Your task to perform on an android device: see creations saved in the google photos Image 0: 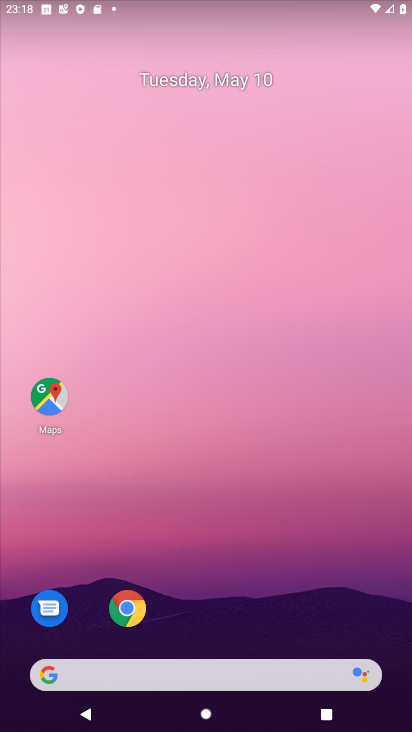
Step 0: drag from (213, 540) to (194, 386)
Your task to perform on an android device: see creations saved in the google photos Image 1: 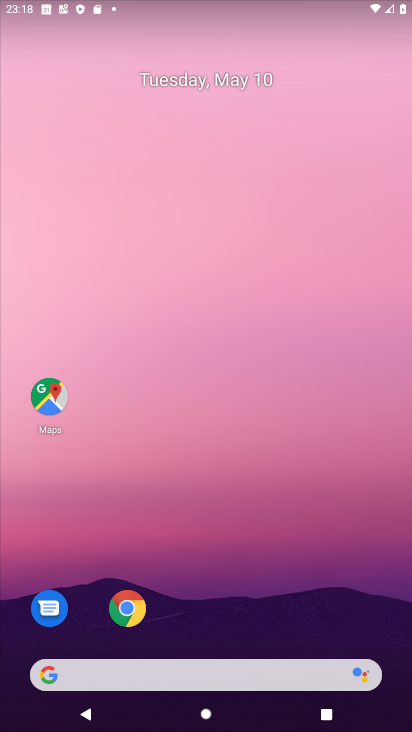
Step 1: drag from (218, 615) to (240, 245)
Your task to perform on an android device: see creations saved in the google photos Image 2: 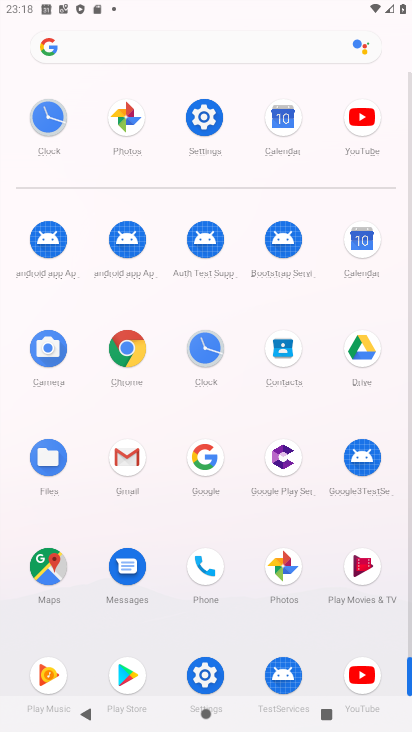
Step 2: click (124, 108)
Your task to perform on an android device: see creations saved in the google photos Image 3: 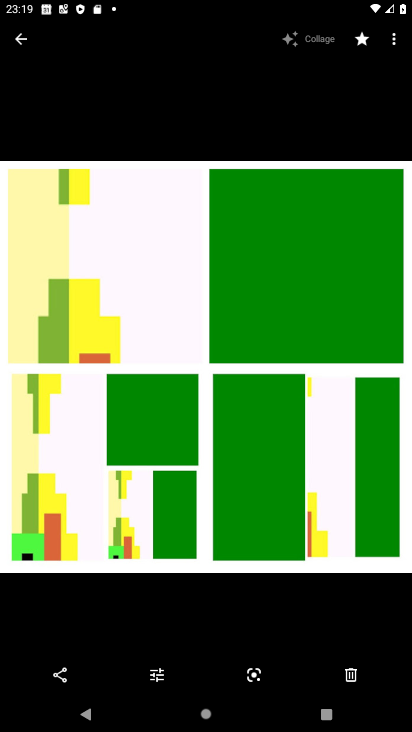
Step 3: task complete